Your task to perform on an android device: Open Android settings Image 0: 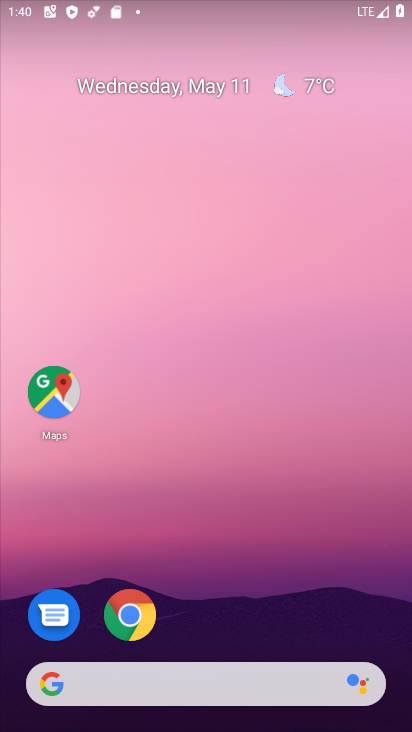
Step 0: drag from (290, 583) to (271, 89)
Your task to perform on an android device: Open Android settings Image 1: 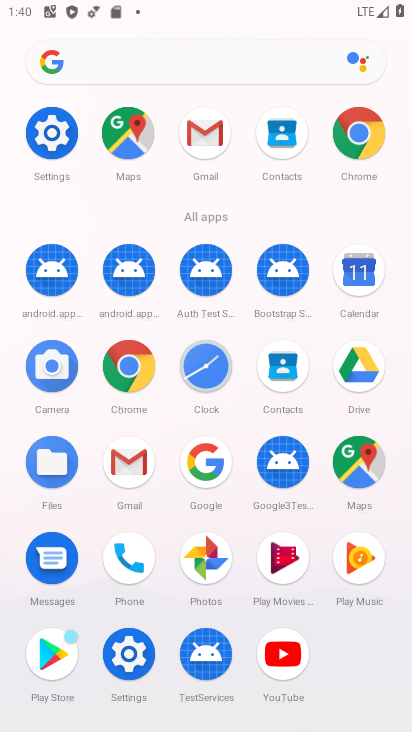
Step 1: click (60, 136)
Your task to perform on an android device: Open Android settings Image 2: 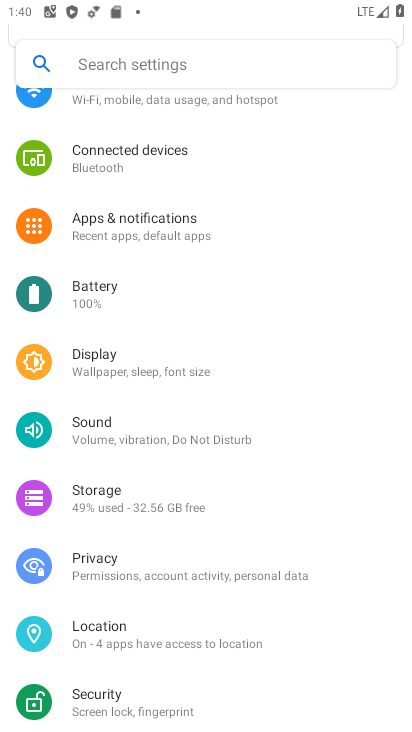
Step 2: task complete